Your task to perform on an android device: choose inbox layout in the gmail app Image 0: 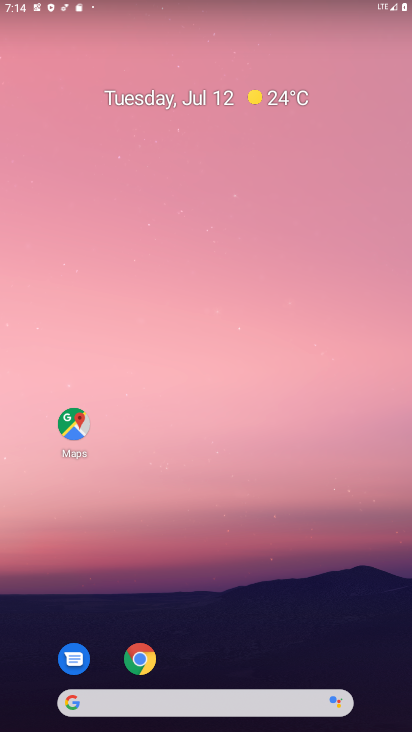
Step 0: drag from (352, 623) to (204, 21)
Your task to perform on an android device: choose inbox layout in the gmail app Image 1: 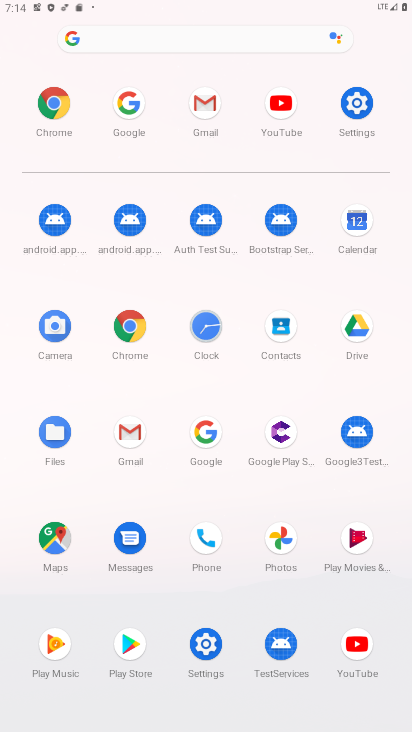
Step 1: click (134, 432)
Your task to perform on an android device: choose inbox layout in the gmail app Image 2: 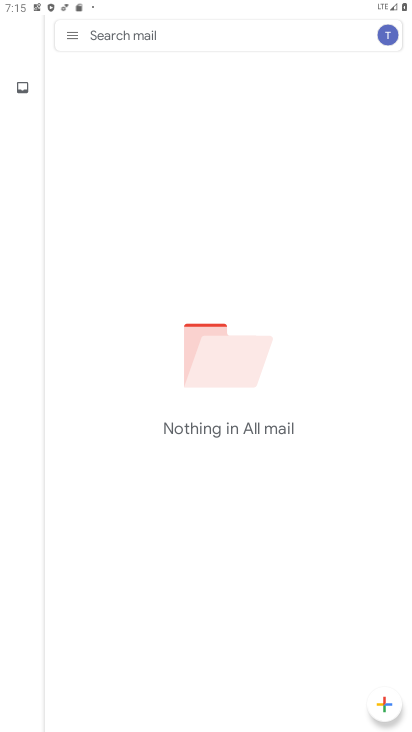
Step 2: task complete